Your task to perform on an android device: turn on sleep mode Image 0: 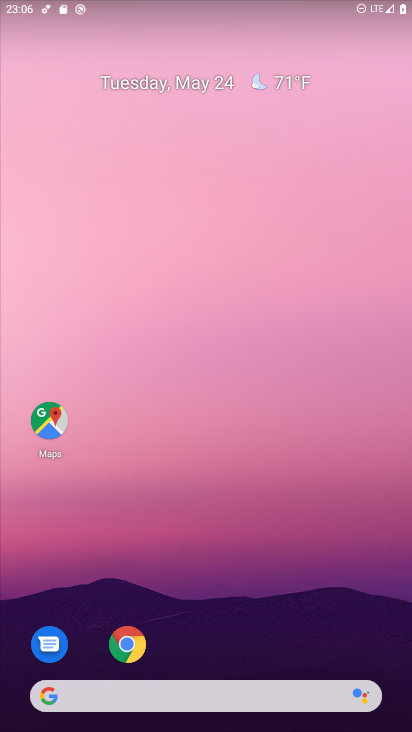
Step 0: drag from (280, 574) to (207, 130)
Your task to perform on an android device: turn on sleep mode Image 1: 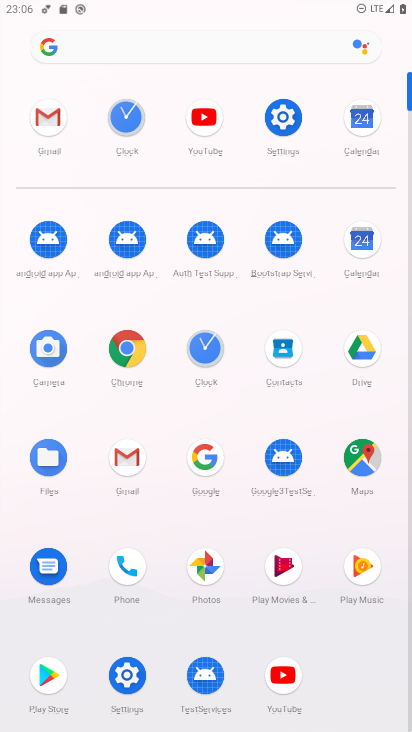
Step 1: click (282, 115)
Your task to perform on an android device: turn on sleep mode Image 2: 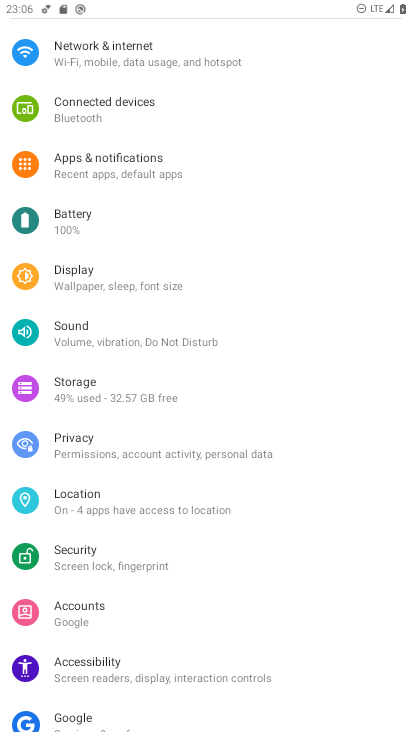
Step 2: click (23, 205)
Your task to perform on an android device: turn on sleep mode Image 3: 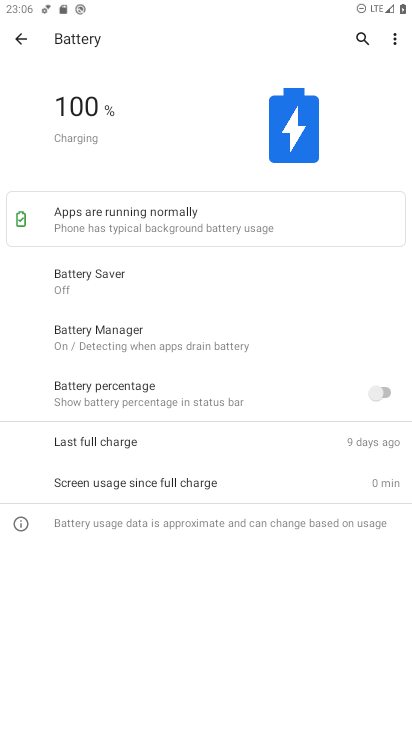
Step 3: task complete